Your task to perform on an android device: Play the last video I watched on Youtube Image 0: 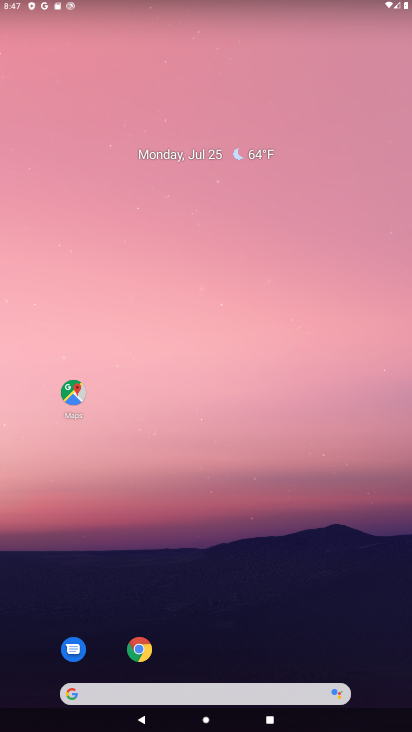
Step 0: drag from (315, 615) to (228, 71)
Your task to perform on an android device: Play the last video I watched on Youtube Image 1: 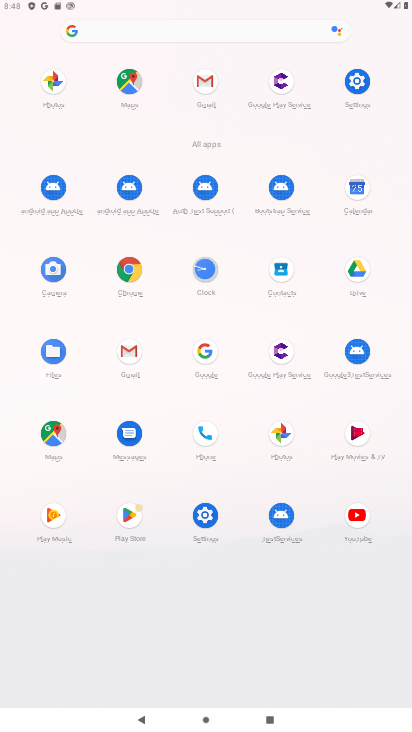
Step 1: click (352, 515)
Your task to perform on an android device: Play the last video I watched on Youtube Image 2: 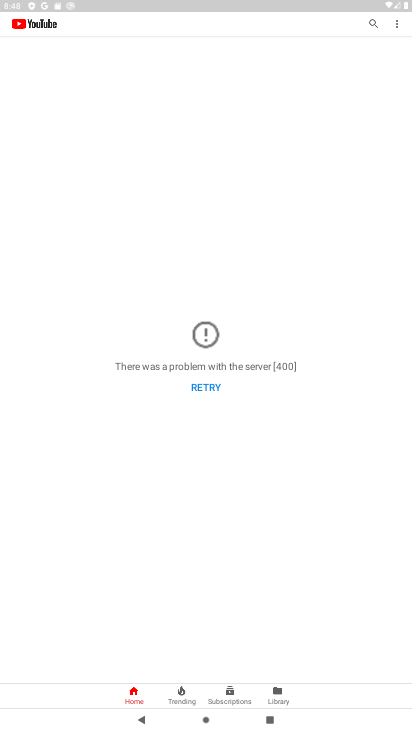
Step 2: click (281, 694)
Your task to perform on an android device: Play the last video I watched on Youtube Image 3: 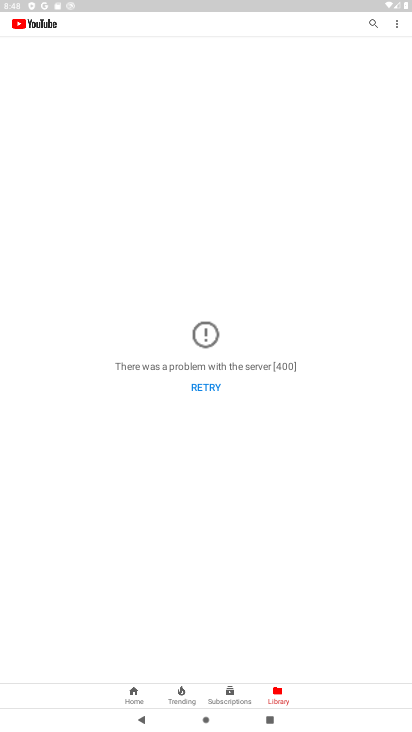
Step 3: task complete